Your task to perform on an android device: allow cookies in the chrome app Image 0: 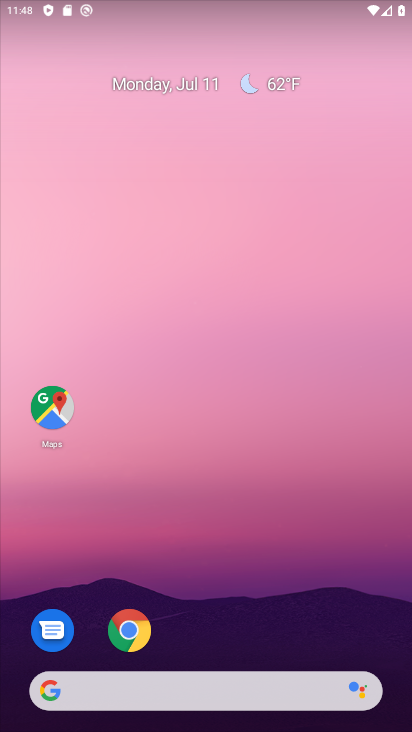
Step 0: click (131, 627)
Your task to perform on an android device: allow cookies in the chrome app Image 1: 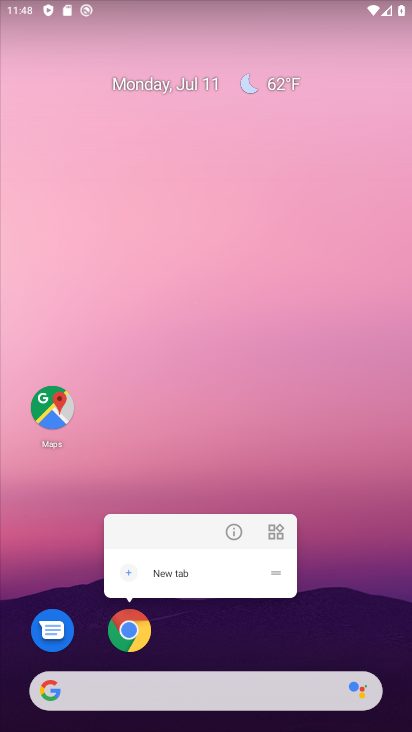
Step 1: click (128, 633)
Your task to perform on an android device: allow cookies in the chrome app Image 2: 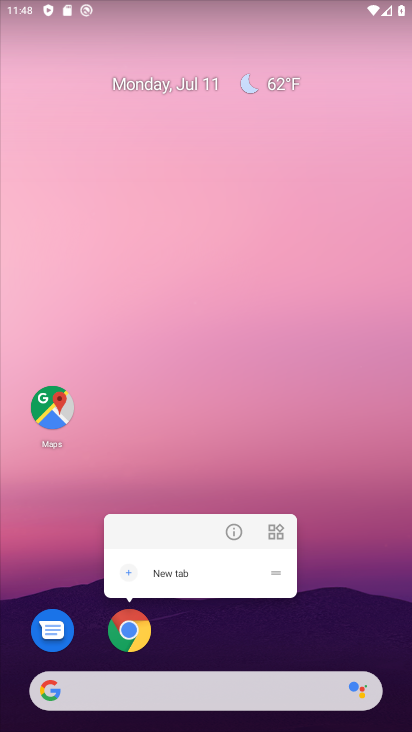
Step 2: click (133, 635)
Your task to perform on an android device: allow cookies in the chrome app Image 3: 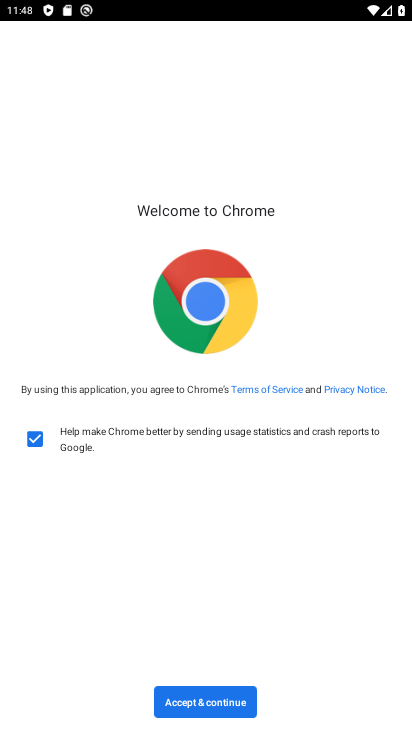
Step 3: click (234, 708)
Your task to perform on an android device: allow cookies in the chrome app Image 4: 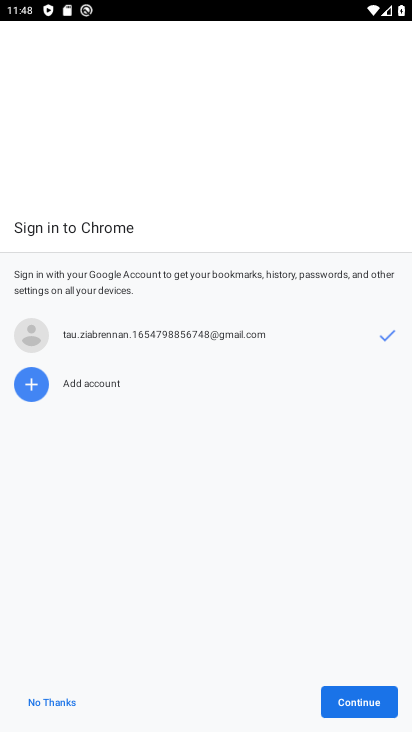
Step 4: click (350, 698)
Your task to perform on an android device: allow cookies in the chrome app Image 5: 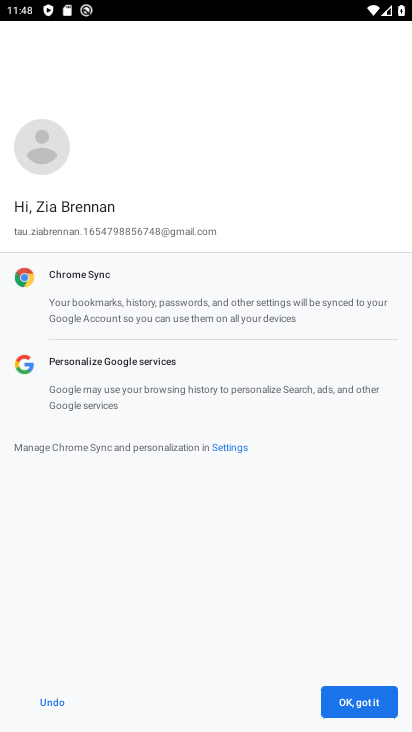
Step 5: click (352, 698)
Your task to perform on an android device: allow cookies in the chrome app Image 6: 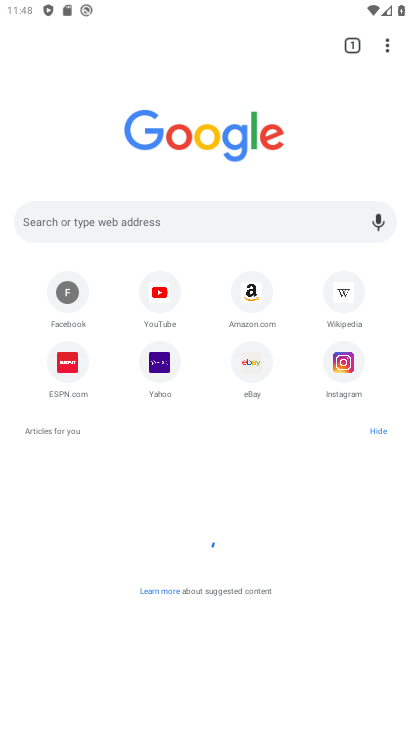
Step 6: click (382, 42)
Your task to perform on an android device: allow cookies in the chrome app Image 7: 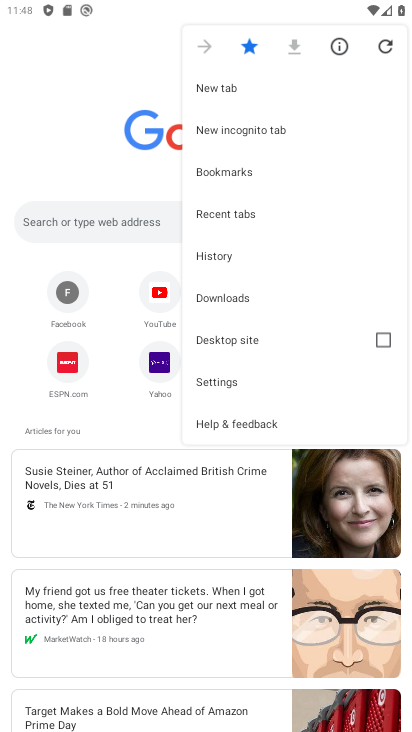
Step 7: click (250, 385)
Your task to perform on an android device: allow cookies in the chrome app Image 8: 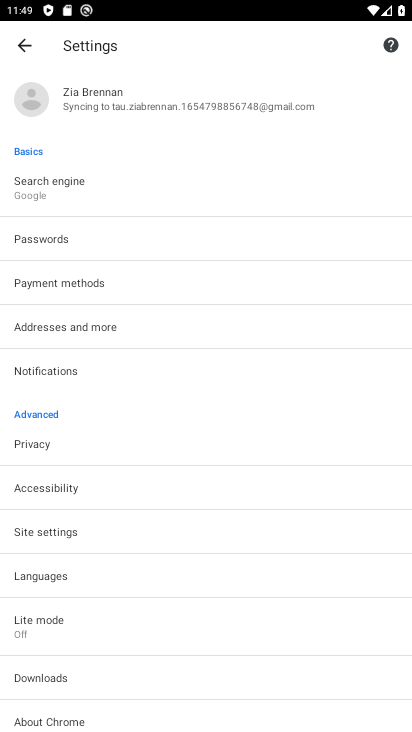
Step 8: click (62, 537)
Your task to perform on an android device: allow cookies in the chrome app Image 9: 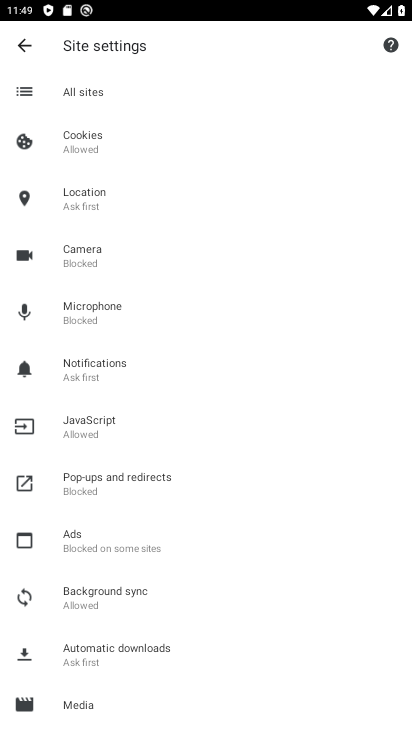
Step 9: click (119, 140)
Your task to perform on an android device: allow cookies in the chrome app Image 10: 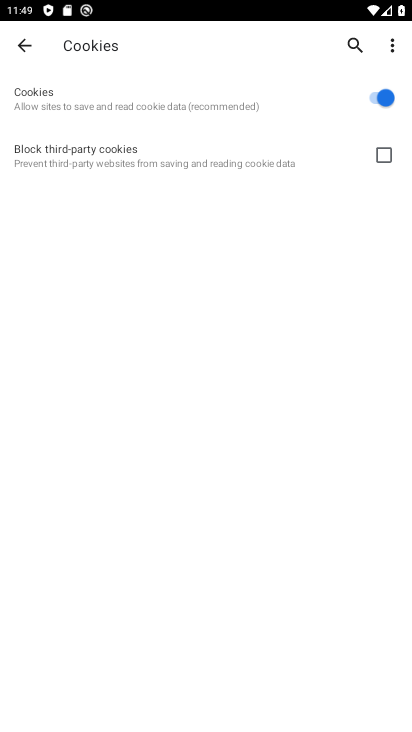
Step 10: task complete